Your task to perform on an android device: What's the weather? Image 0: 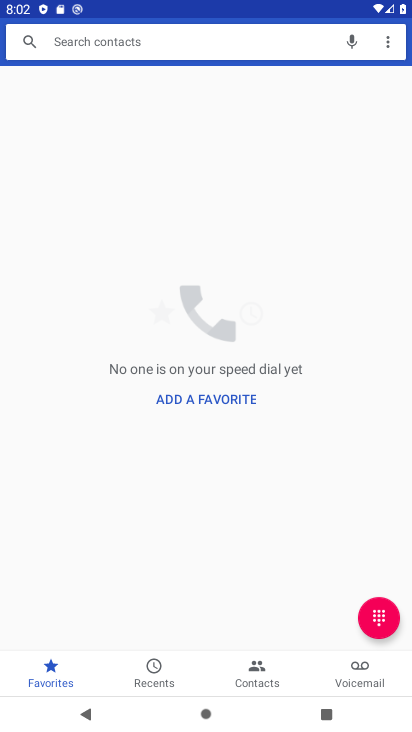
Step 0: press home button
Your task to perform on an android device: What's the weather? Image 1: 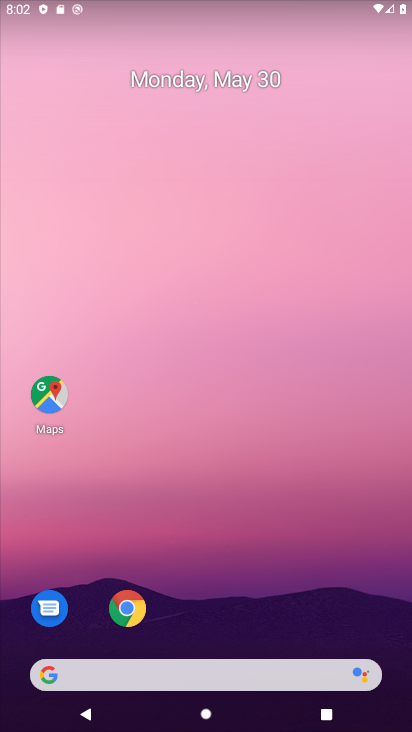
Step 1: drag from (202, 610) to (182, 87)
Your task to perform on an android device: What's the weather? Image 2: 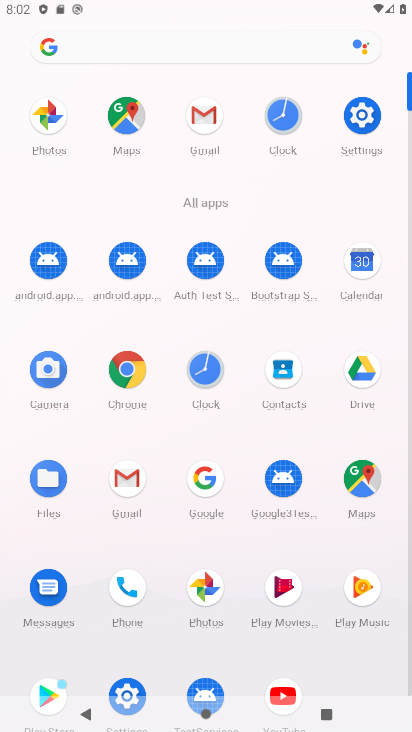
Step 2: click (196, 498)
Your task to perform on an android device: What's the weather? Image 3: 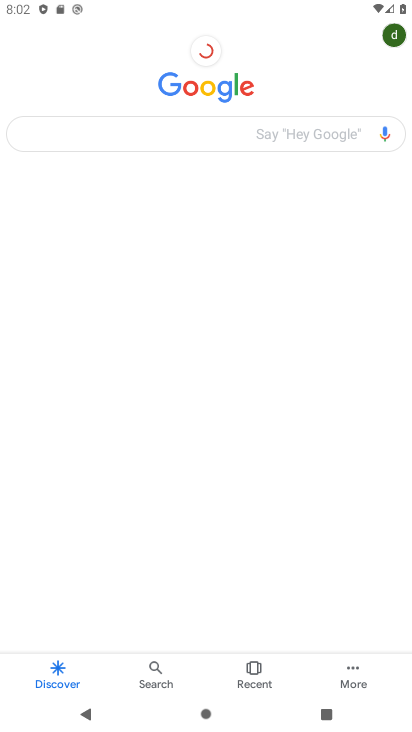
Step 3: click (159, 130)
Your task to perform on an android device: What's the weather? Image 4: 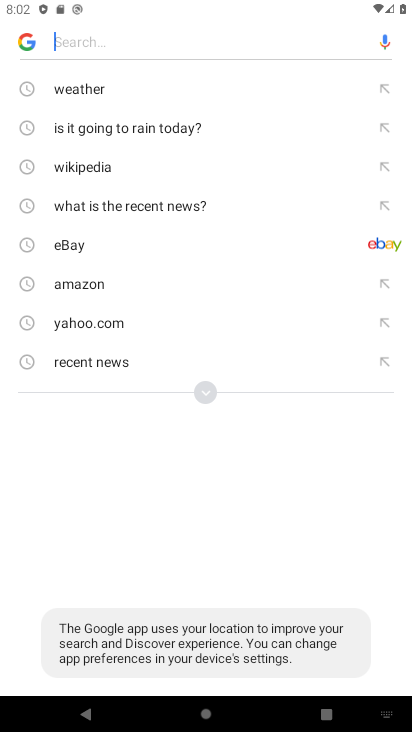
Step 4: click (119, 95)
Your task to perform on an android device: What's the weather? Image 5: 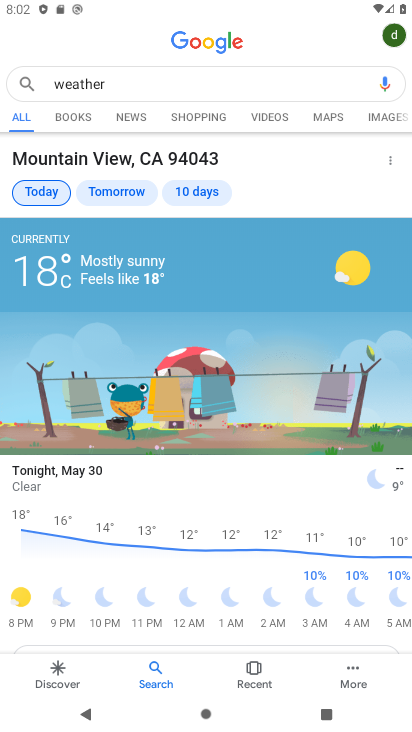
Step 5: task complete